Your task to perform on an android device: see creations saved in the google photos Image 0: 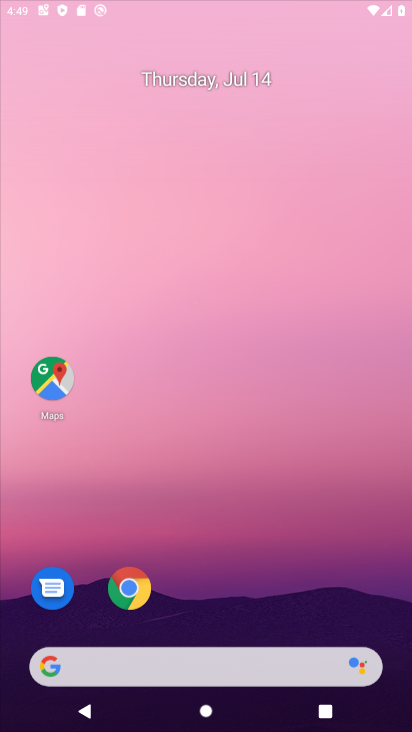
Step 0: click (197, 415)
Your task to perform on an android device: see creations saved in the google photos Image 1: 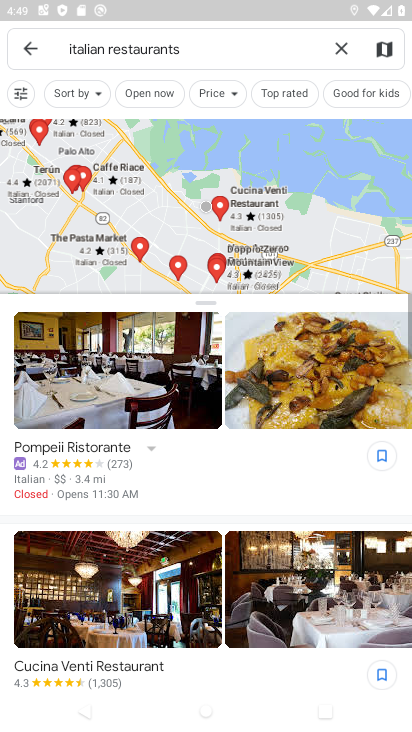
Step 1: drag from (204, 644) to (208, 591)
Your task to perform on an android device: see creations saved in the google photos Image 2: 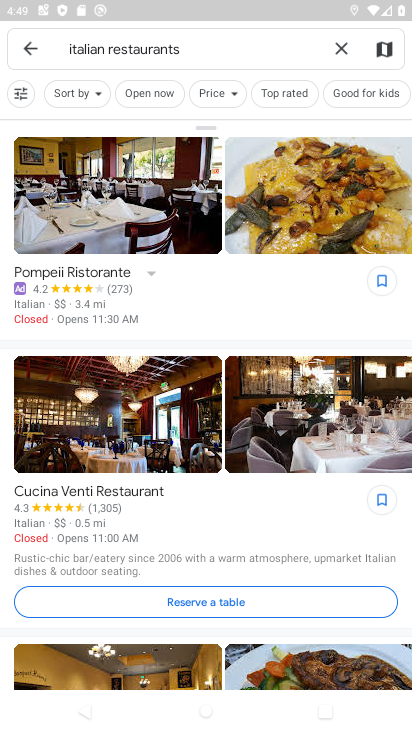
Step 2: press home button
Your task to perform on an android device: see creations saved in the google photos Image 3: 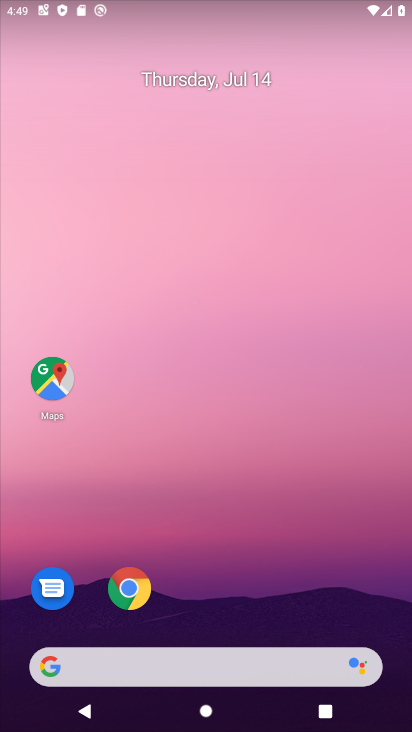
Step 3: drag from (227, 557) to (227, 428)
Your task to perform on an android device: see creations saved in the google photos Image 4: 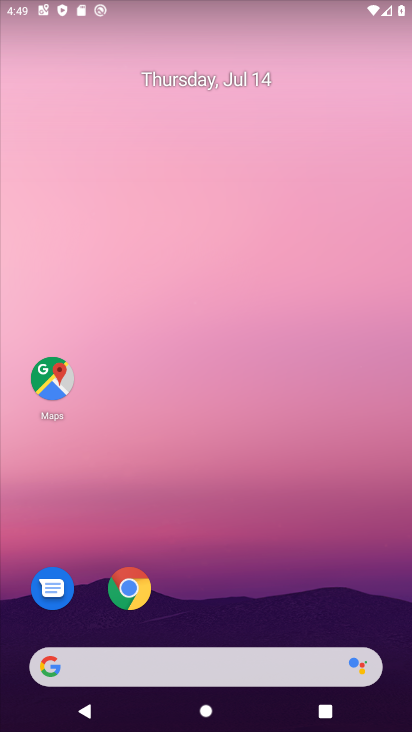
Step 4: drag from (179, 634) to (178, 435)
Your task to perform on an android device: see creations saved in the google photos Image 5: 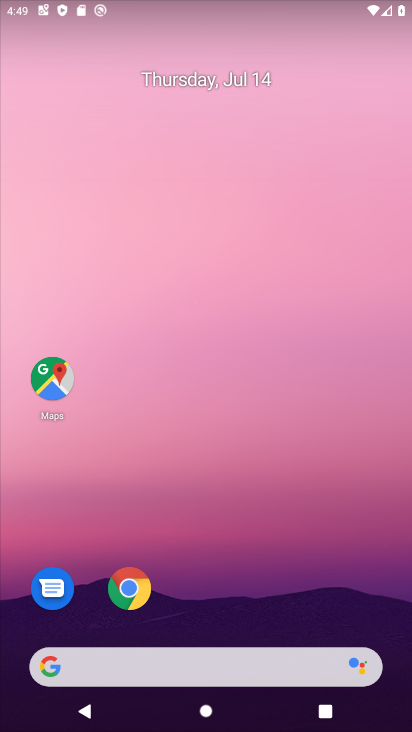
Step 5: drag from (208, 529) to (251, 226)
Your task to perform on an android device: see creations saved in the google photos Image 6: 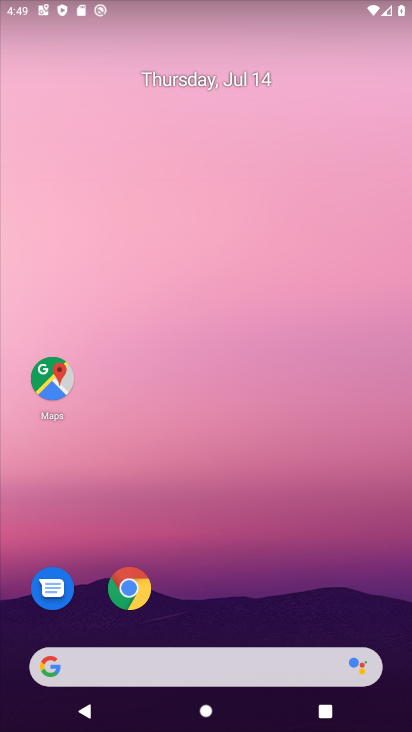
Step 6: drag from (284, 635) to (329, 261)
Your task to perform on an android device: see creations saved in the google photos Image 7: 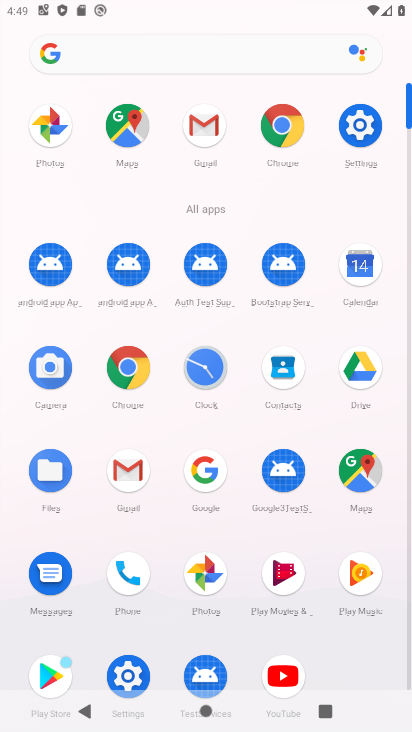
Step 7: click (194, 574)
Your task to perform on an android device: see creations saved in the google photos Image 8: 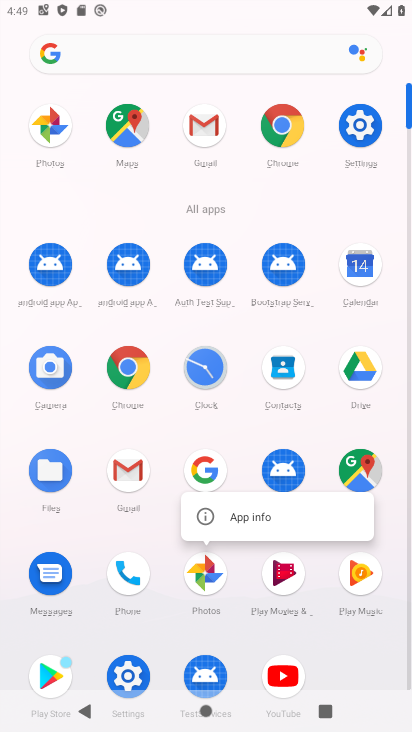
Step 8: click (199, 574)
Your task to perform on an android device: see creations saved in the google photos Image 9: 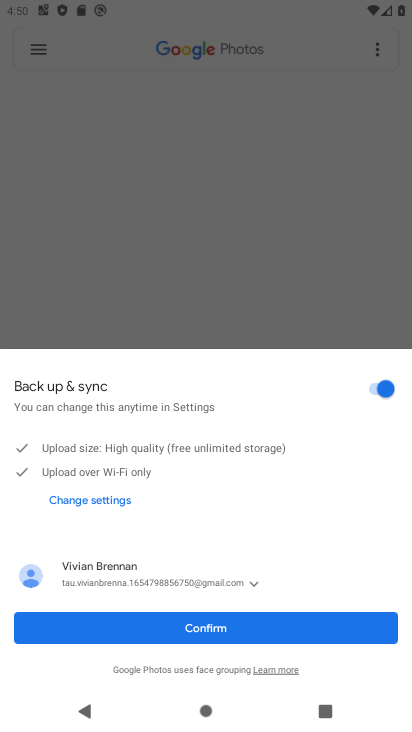
Step 9: click (174, 631)
Your task to perform on an android device: see creations saved in the google photos Image 10: 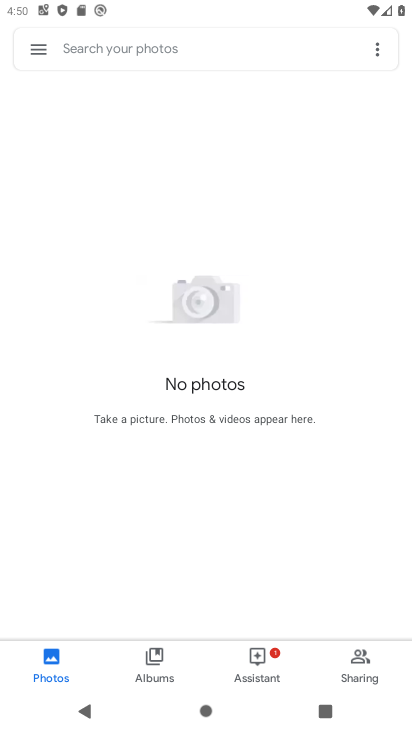
Step 10: drag from (217, 600) to (227, 346)
Your task to perform on an android device: see creations saved in the google photos Image 11: 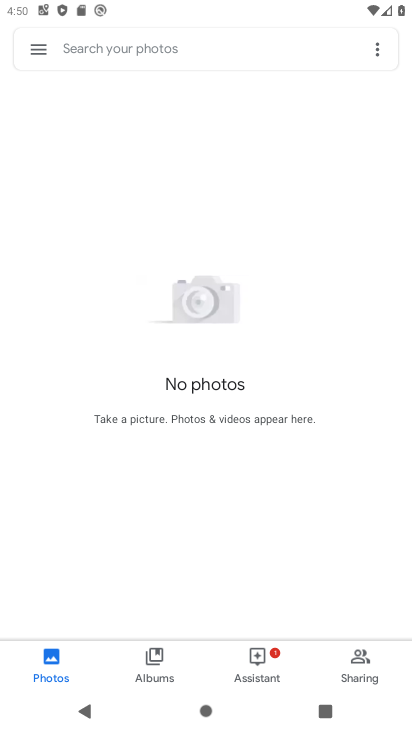
Step 11: click (149, 666)
Your task to perform on an android device: see creations saved in the google photos Image 12: 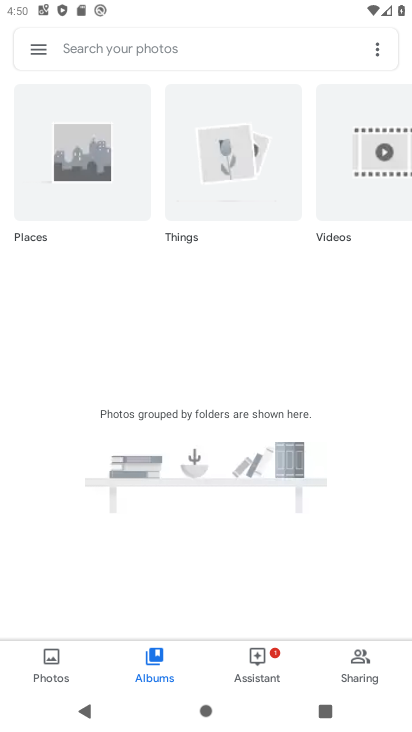
Step 12: task complete